Your task to perform on an android device: Show me popular games on the Play Store Image 0: 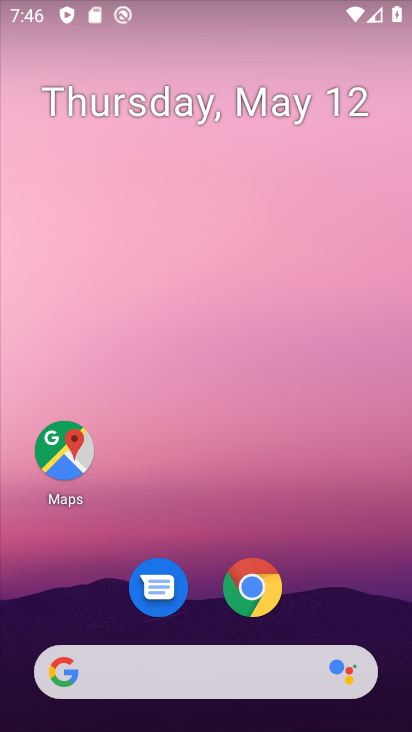
Step 0: drag from (335, 641) to (305, 309)
Your task to perform on an android device: Show me popular games on the Play Store Image 1: 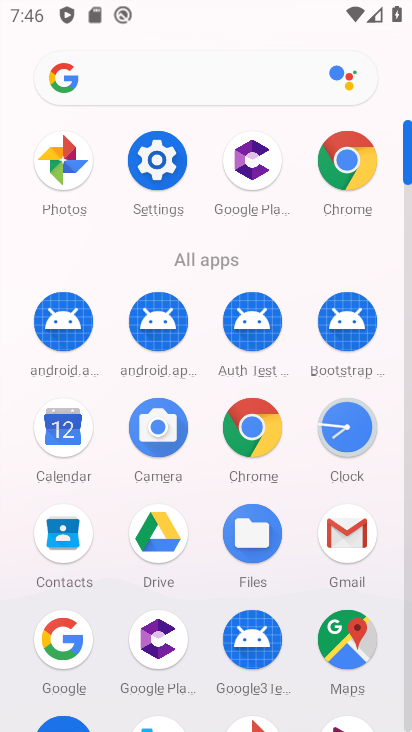
Step 1: drag from (204, 613) to (254, 298)
Your task to perform on an android device: Show me popular games on the Play Store Image 2: 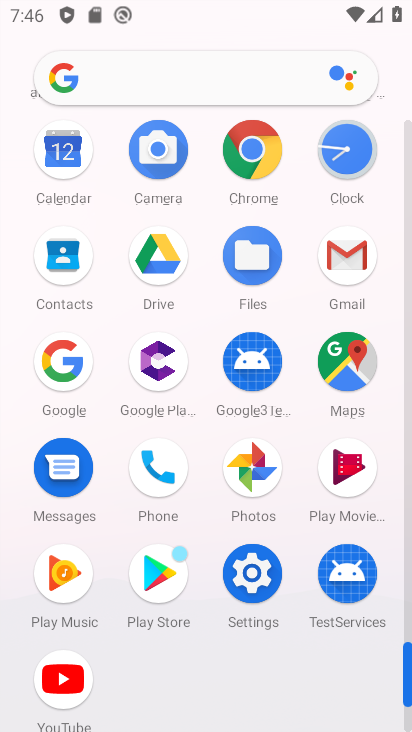
Step 2: click (170, 572)
Your task to perform on an android device: Show me popular games on the Play Store Image 3: 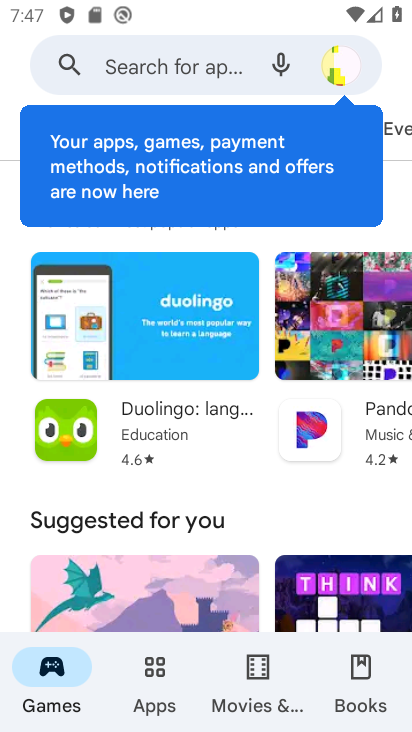
Step 3: task complete